Your task to perform on an android device: find snoozed emails in the gmail app Image 0: 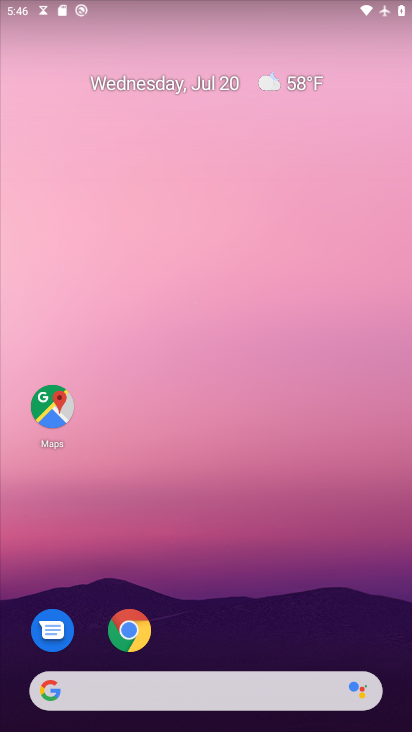
Step 0: drag from (179, 135) to (207, 165)
Your task to perform on an android device: find snoozed emails in the gmail app Image 1: 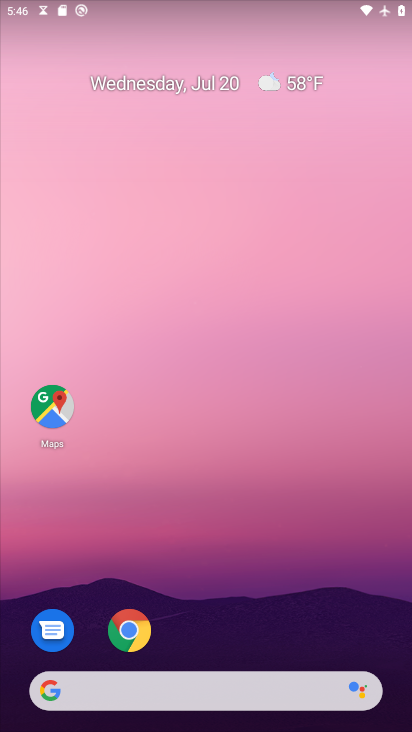
Step 1: drag from (251, 647) to (129, 123)
Your task to perform on an android device: find snoozed emails in the gmail app Image 2: 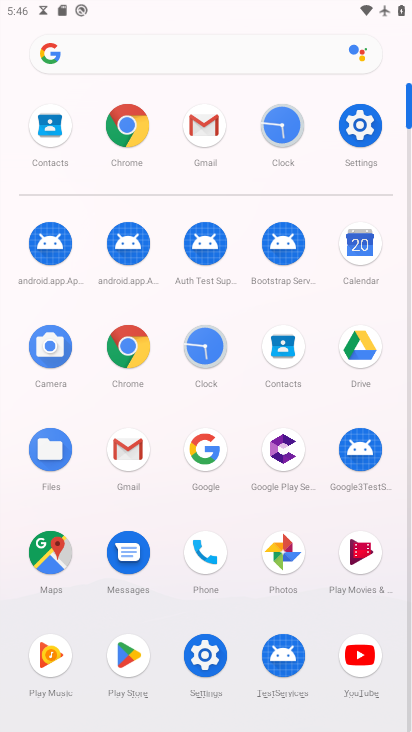
Step 2: click (200, 127)
Your task to perform on an android device: find snoozed emails in the gmail app Image 3: 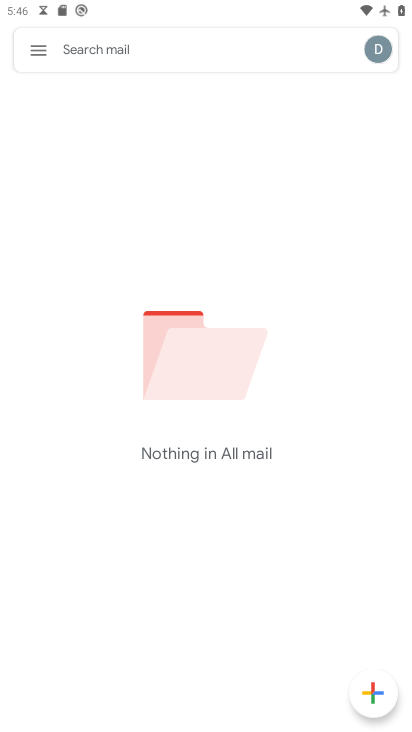
Step 3: click (25, 44)
Your task to perform on an android device: find snoozed emails in the gmail app Image 4: 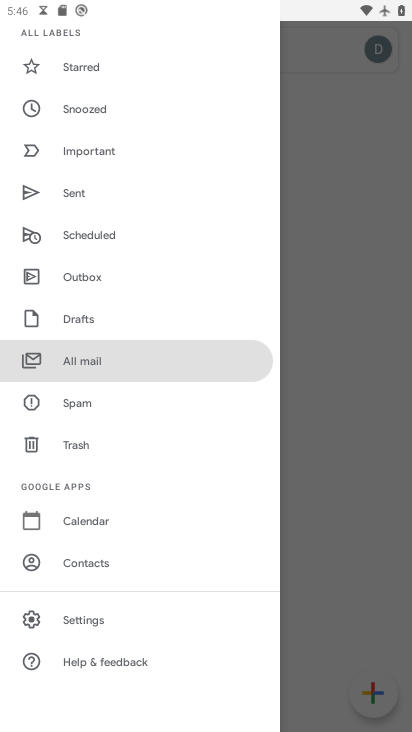
Step 4: click (92, 108)
Your task to perform on an android device: find snoozed emails in the gmail app Image 5: 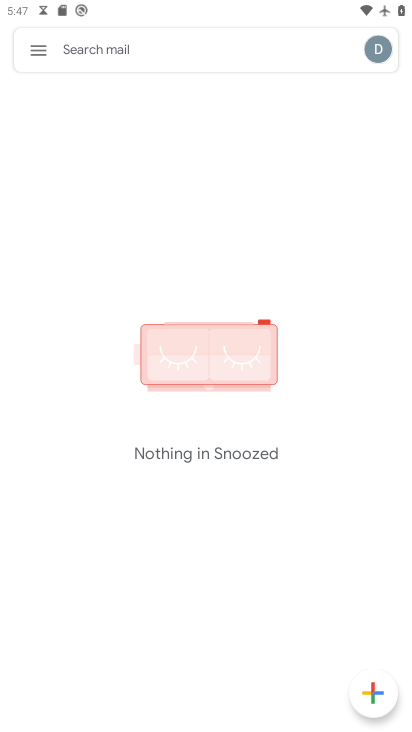
Step 5: task complete